Your task to perform on an android device: check storage Image 0: 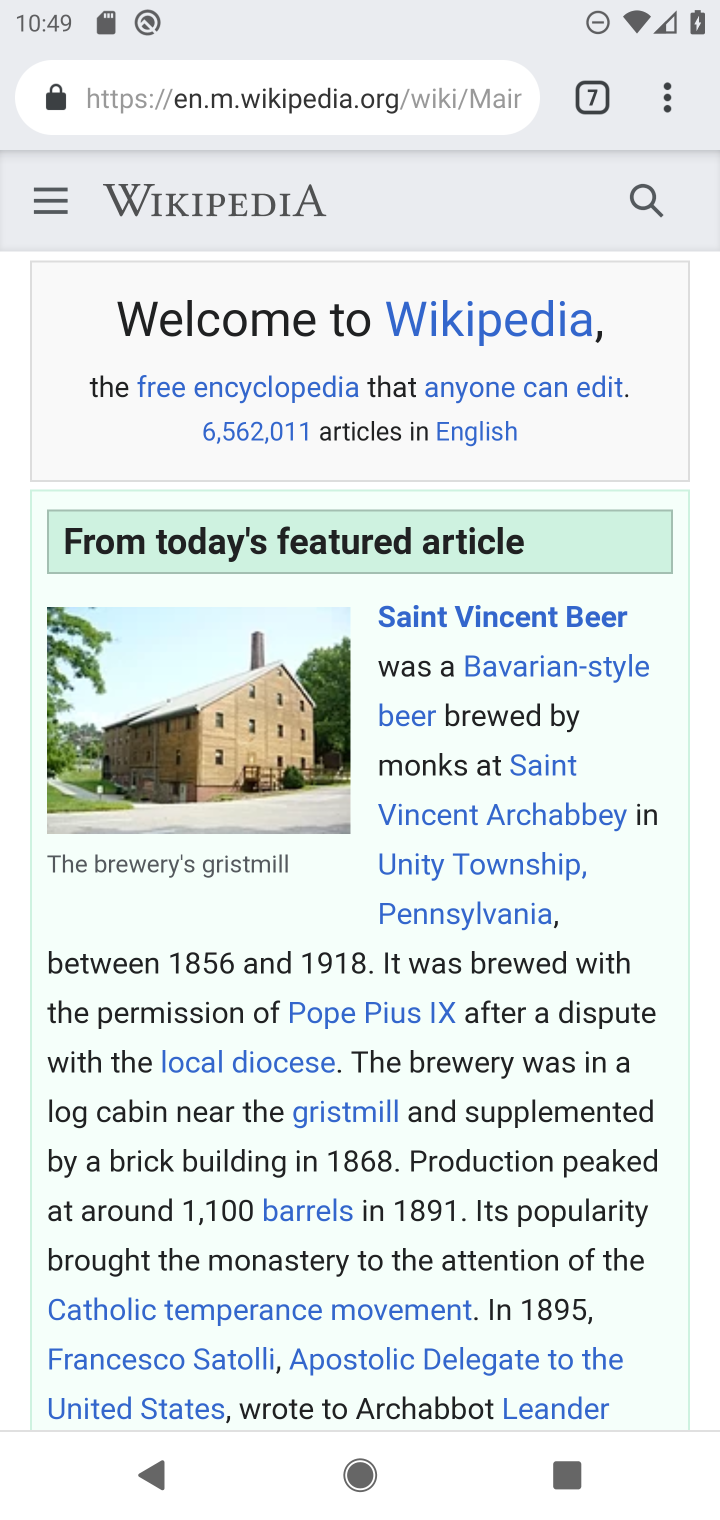
Step 0: press home button
Your task to perform on an android device: check storage Image 1: 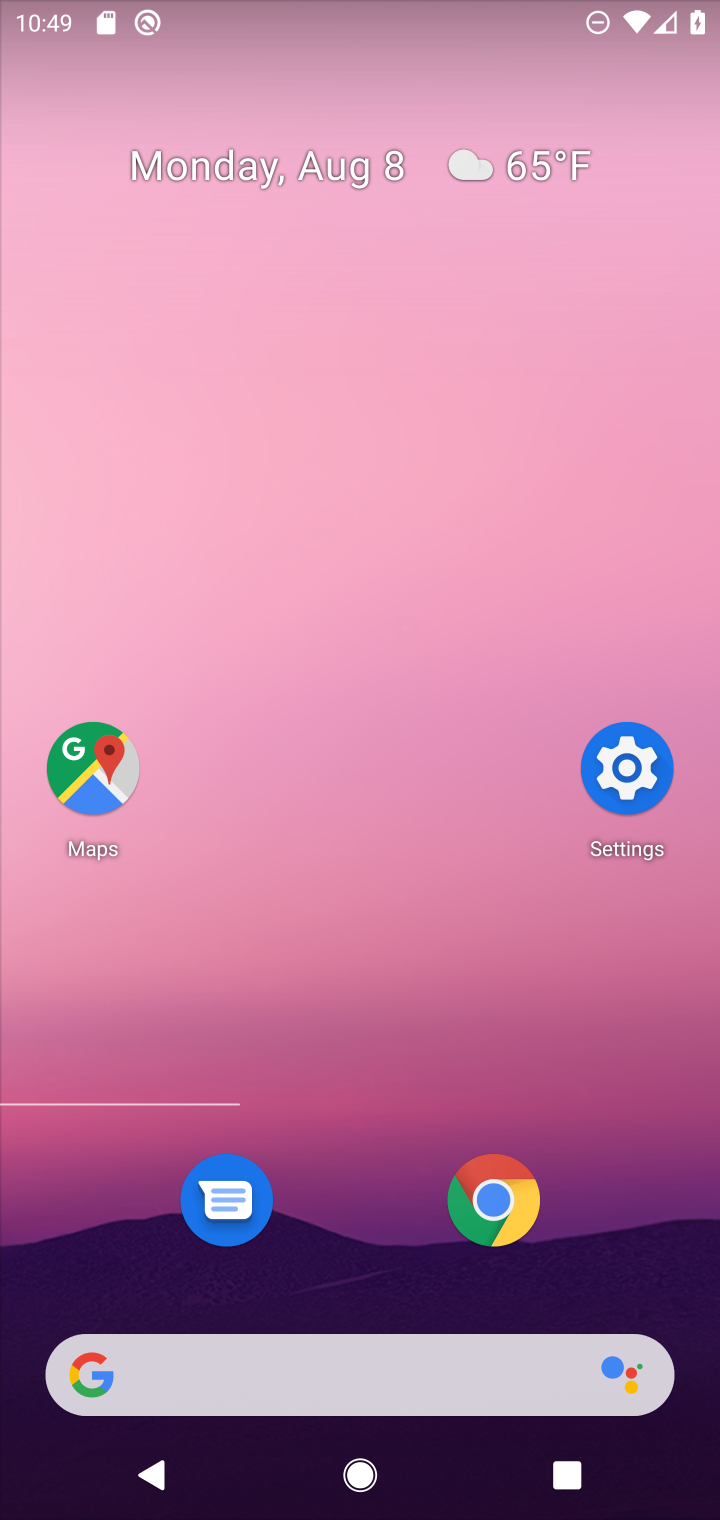
Step 1: click (622, 761)
Your task to perform on an android device: check storage Image 2: 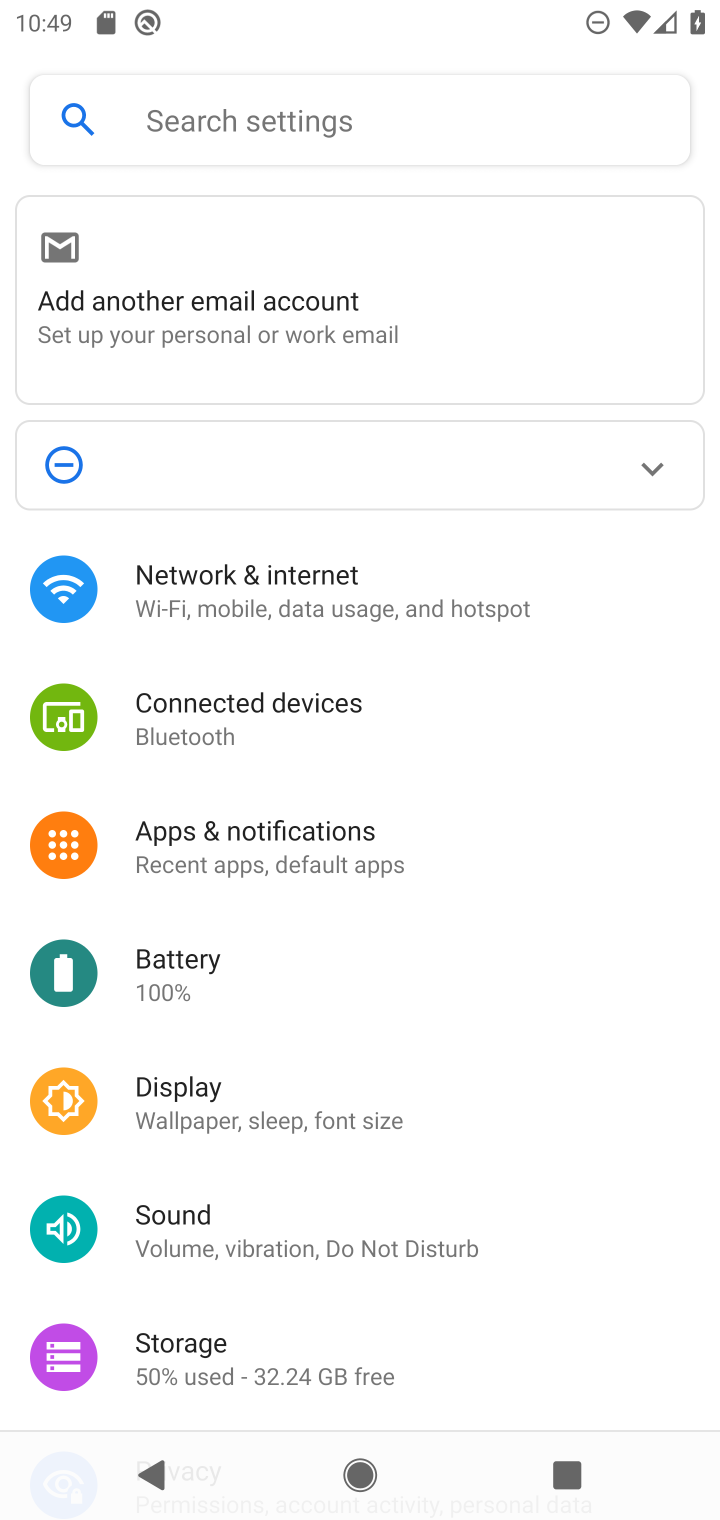
Step 2: click (219, 1358)
Your task to perform on an android device: check storage Image 3: 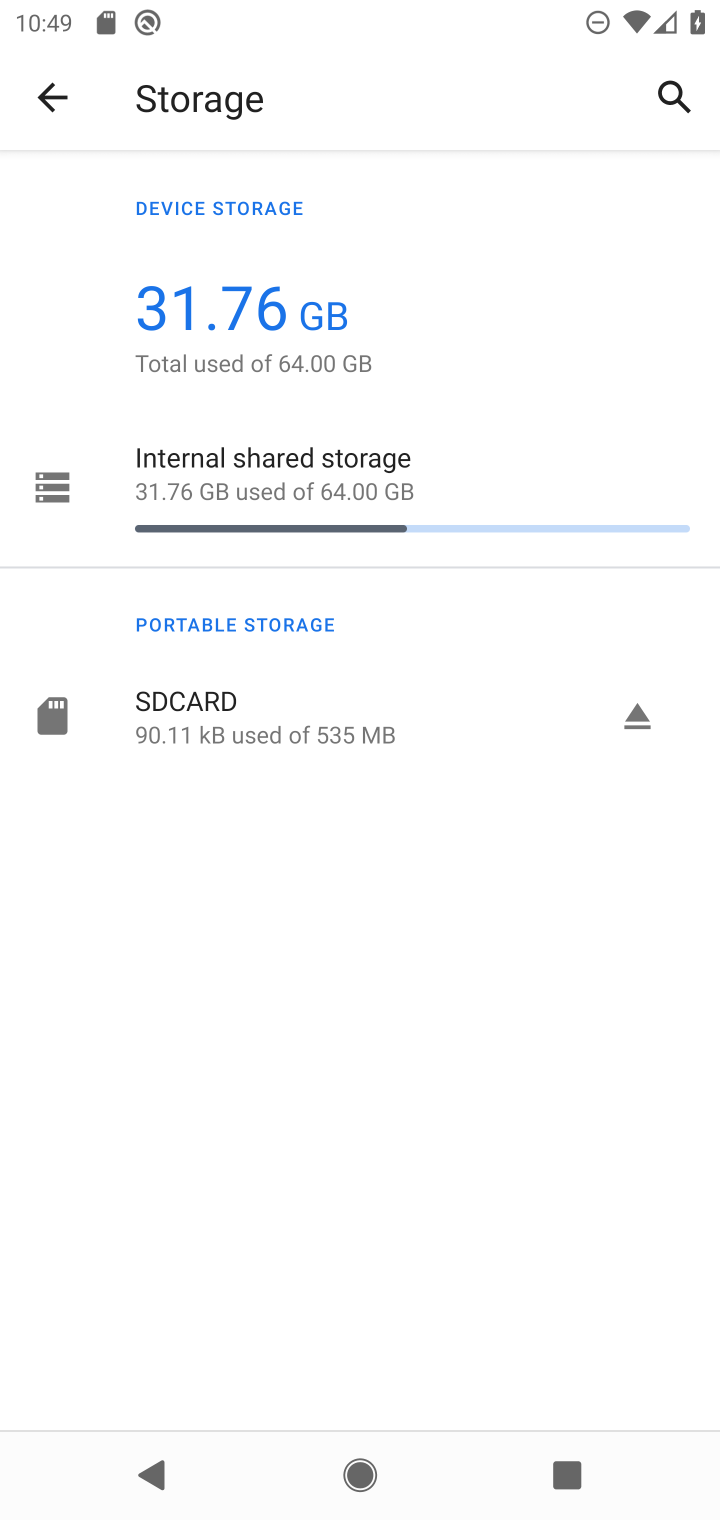
Step 3: task complete